Your task to perform on an android device: change notification settings in the gmail app Image 0: 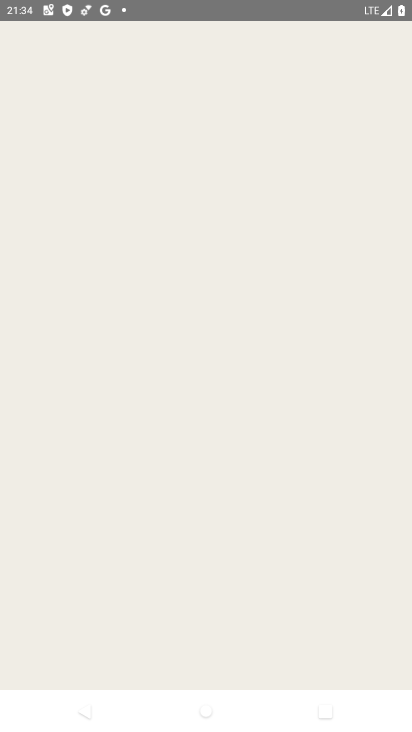
Step 0: press home button
Your task to perform on an android device: change notification settings in the gmail app Image 1: 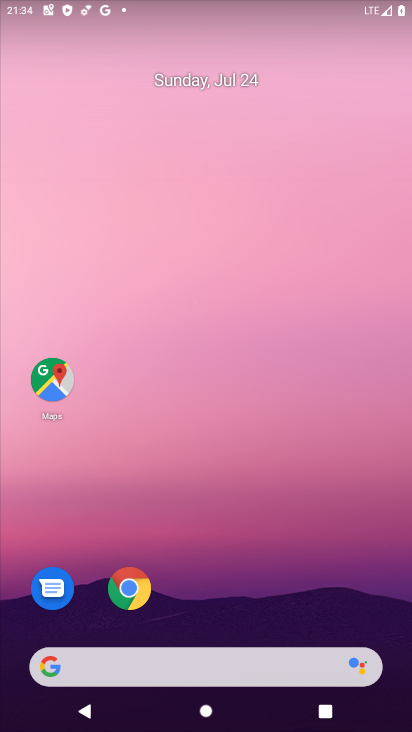
Step 1: drag from (220, 647) to (245, 112)
Your task to perform on an android device: change notification settings in the gmail app Image 2: 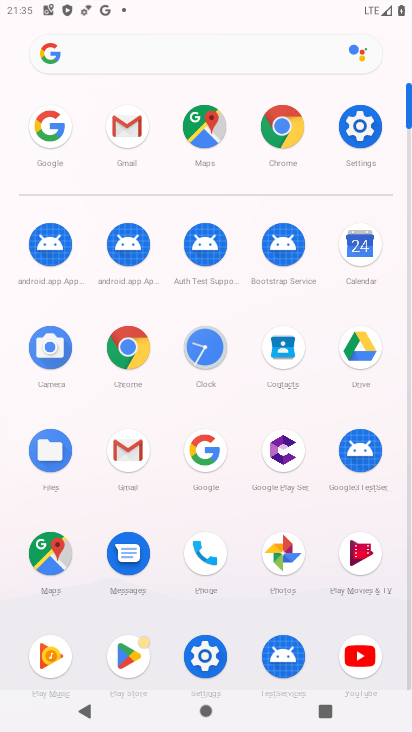
Step 2: click (126, 138)
Your task to perform on an android device: change notification settings in the gmail app Image 3: 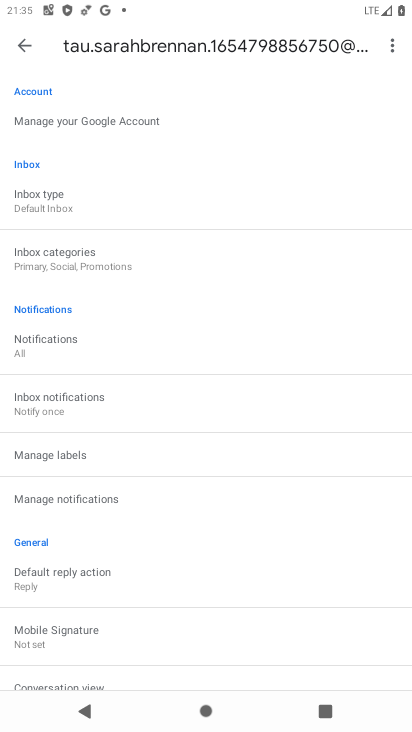
Step 3: click (104, 494)
Your task to perform on an android device: change notification settings in the gmail app Image 4: 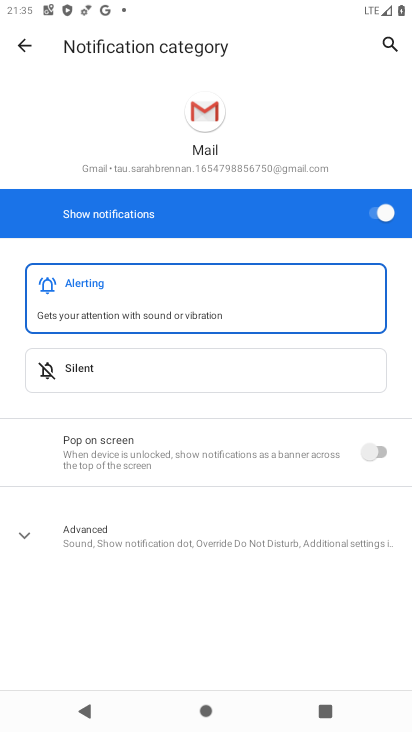
Step 4: click (382, 206)
Your task to perform on an android device: change notification settings in the gmail app Image 5: 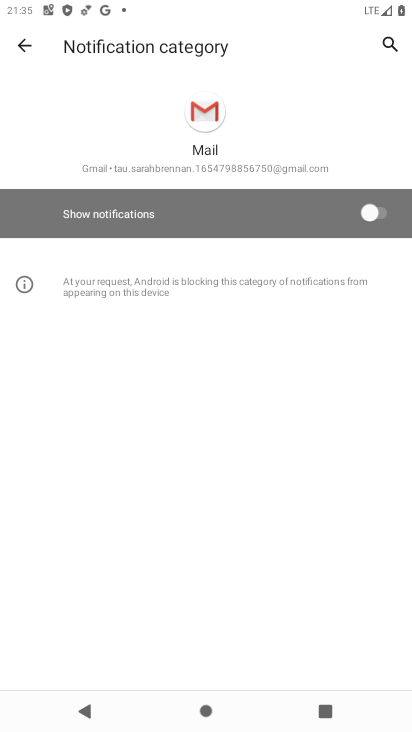
Step 5: task complete